Your task to perform on an android device: Go to Google Image 0: 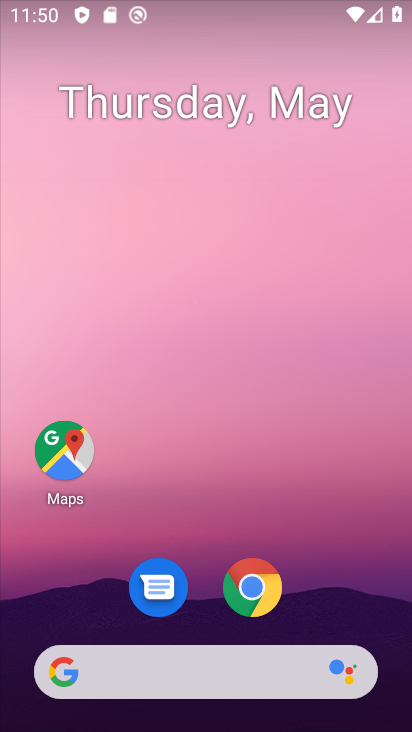
Step 0: drag from (141, 716) to (111, 116)
Your task to perform on an android device: Go to Google Image 1: 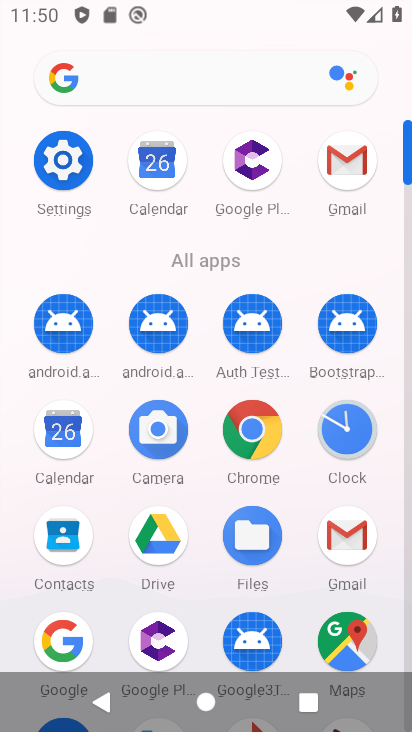
Step 1: click (67, 651)
Your task to perform on an android device: Go to Google Image 2: 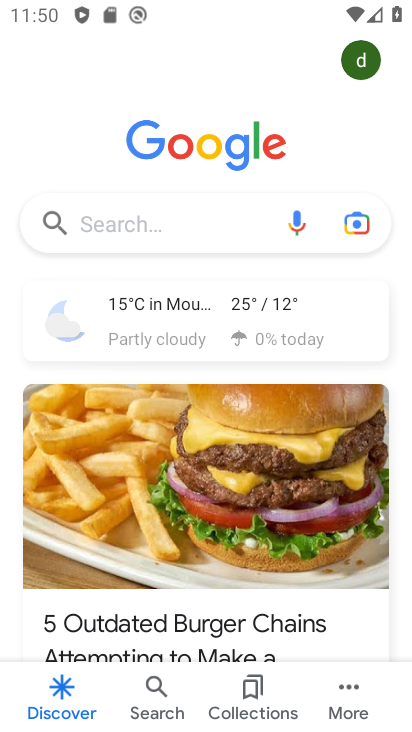
Step 2: task complete